Your task to perform on an android device: open a bookmark in the chrome app Image 0: 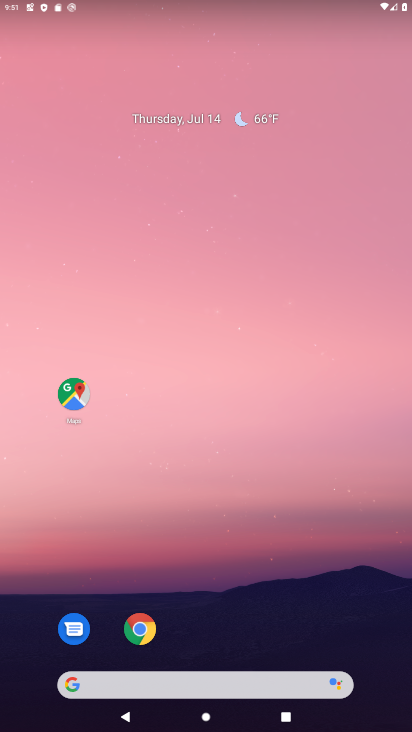
Step 0: press home button
Your task to perform on an android device: open a bookmark in the chrome app Image 1: 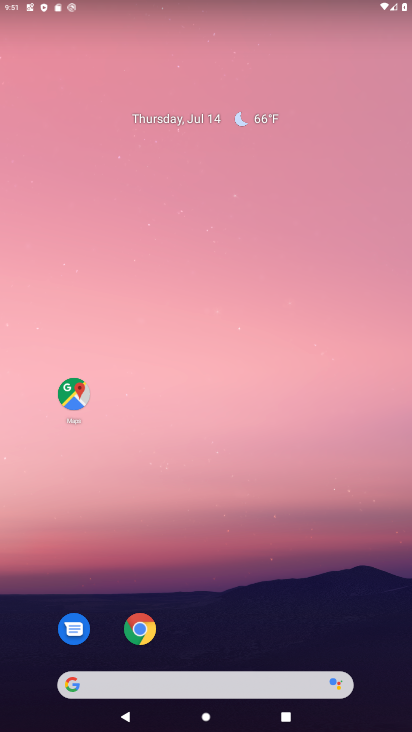
Step 1: click (152, 625)
Your task to perform on an android device: open a bookmark in the chrome app Image 2: 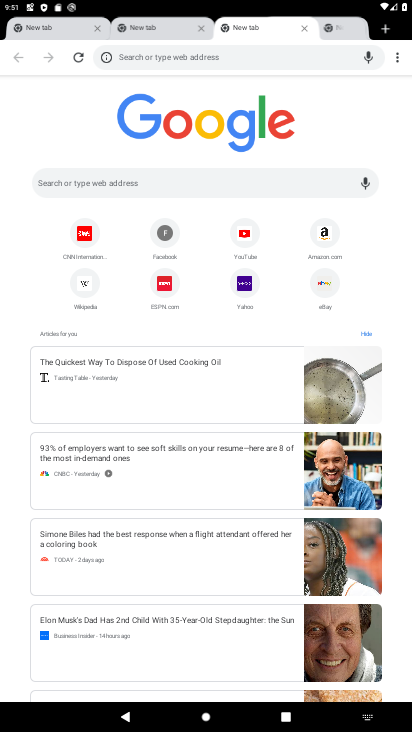
Step 2: task complete